Your task to perform on an android device: What's the weather? Image 0: 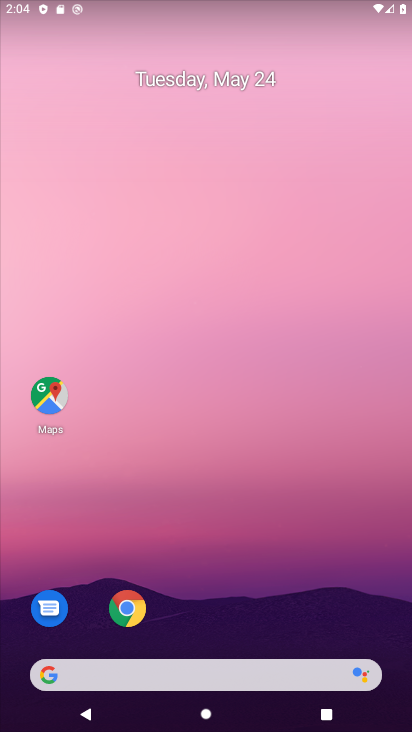
Step 0: drag from (241, 552) to (221, 40)
Your task to perform on an android device: What's the weather? Image 1: 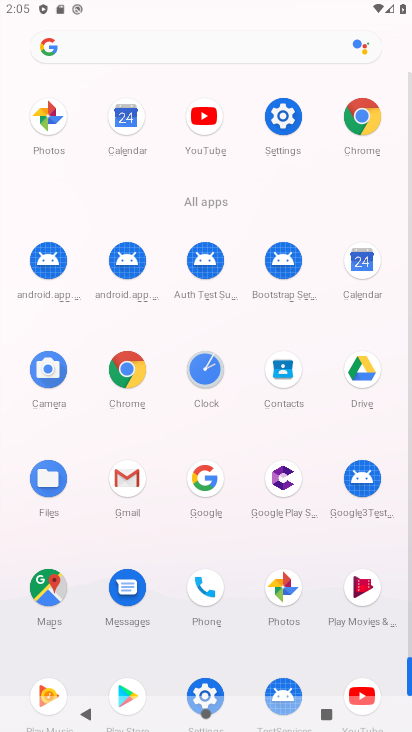
Step 1: drag from (14, 502) to (12, 148)
Your task to perform on an android device: What's the weather? Image 2: 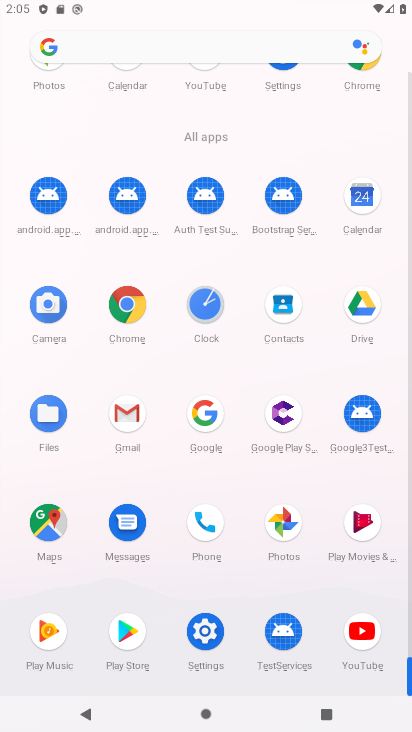
Step 2: drag from (6, 596) to (4, 258)
Your task to perform on an android device: What's the weather? Image 3: 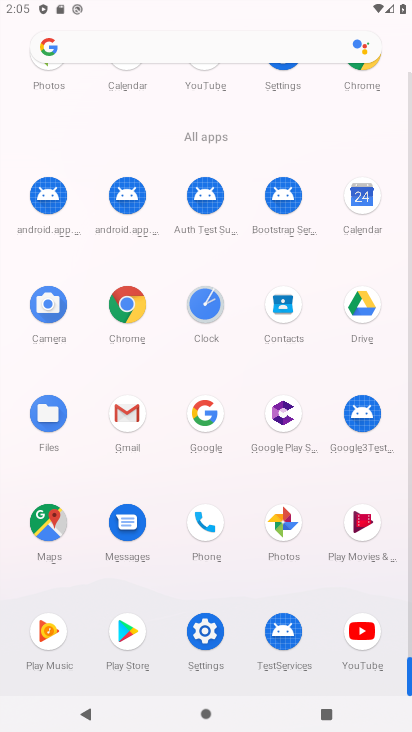
Step 3: click (128, 302)
Your task to perform on an android device: What's the weather? Image 4: 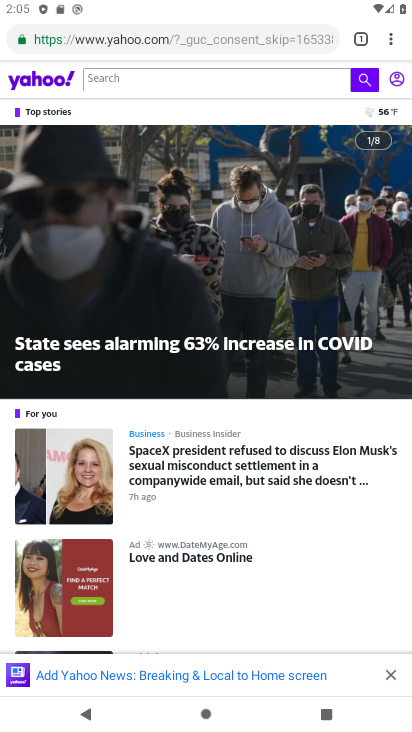
Step 4: click (160, 38)
Your task to perform on an android device: What's the weather? Image 5: 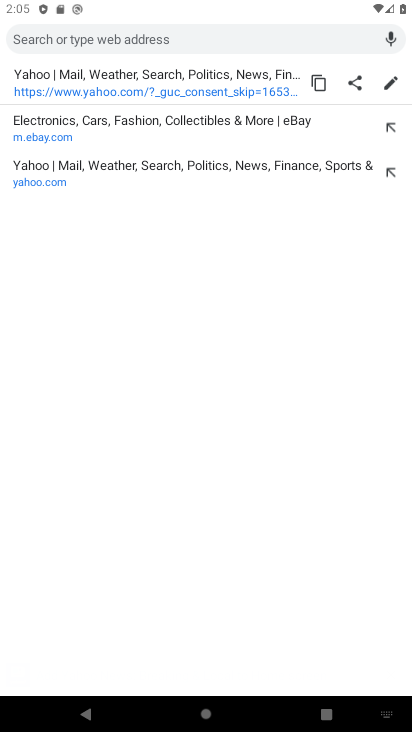
Step 5: type "What's the weather?"
Your task to perform on an android device: What's the weather? Image 6: 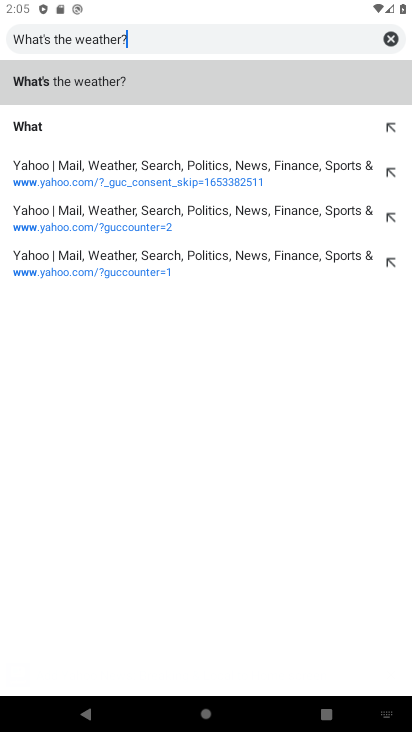
Step 6: type ""
Your task to perform on an android device: What's the weather? Image 7: 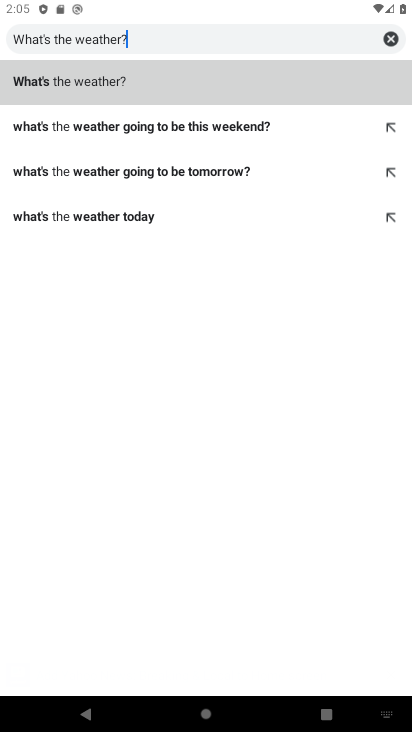
Step 7: click (76, 92)
Your task to perform on an android device: What's the weather? Image 8: 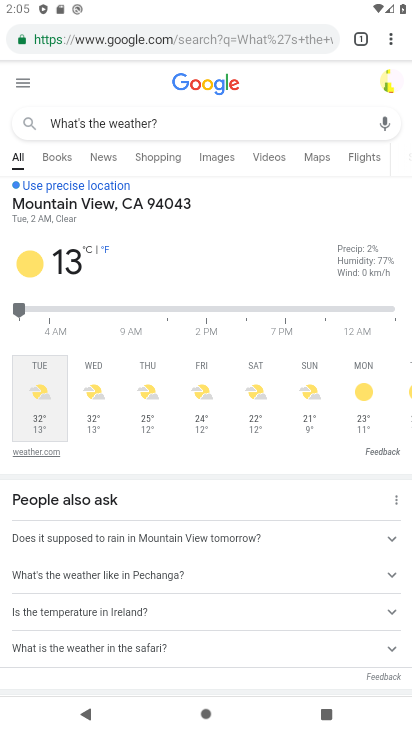
Step 8: task complete